Your task to perform on an android device: Go to notification settings Image 0: 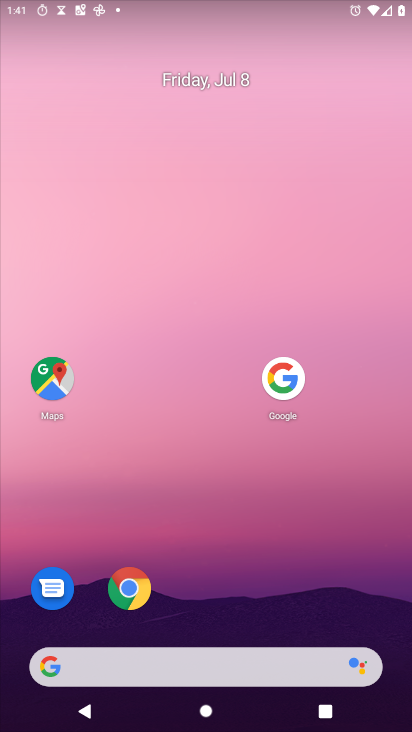
Step 0: drag from (198, 585) to (273, 131)
Your task to perform on an android device: Go to notification settings Image 1: 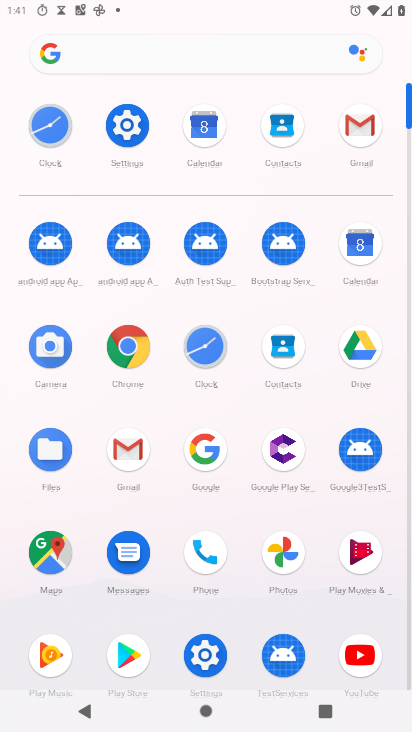
Step 1: click (129, 132)
Your task to perform on an android device: Go to notification settings Image 2: 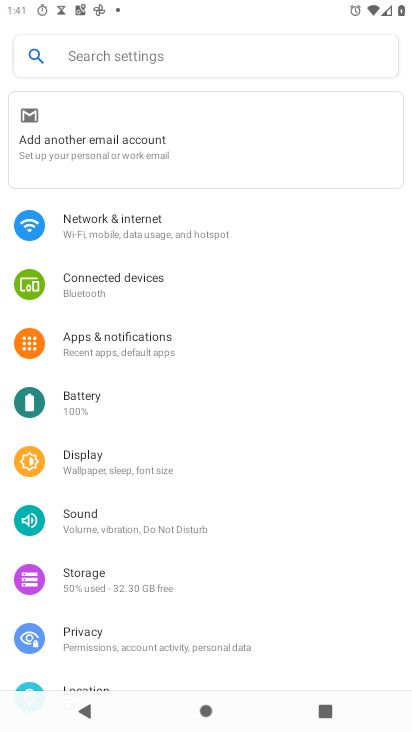
Step 2: click (150, 344)
Your task to perform on an android device: Go to notification settings Image 3: 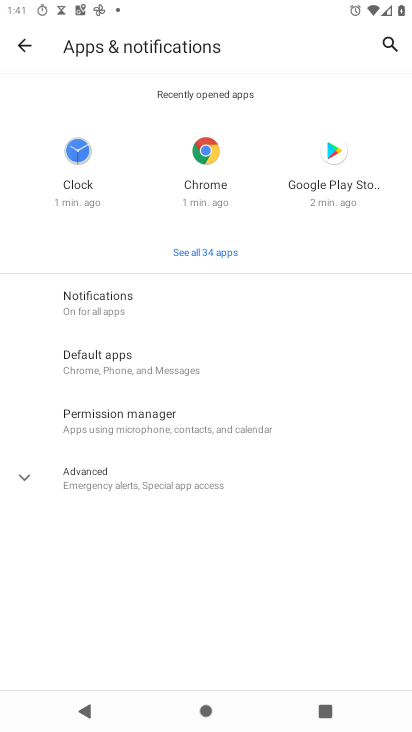
Step 3: click (93, 305)
Your task to perform on an android device: Go to notification settings Image 4: 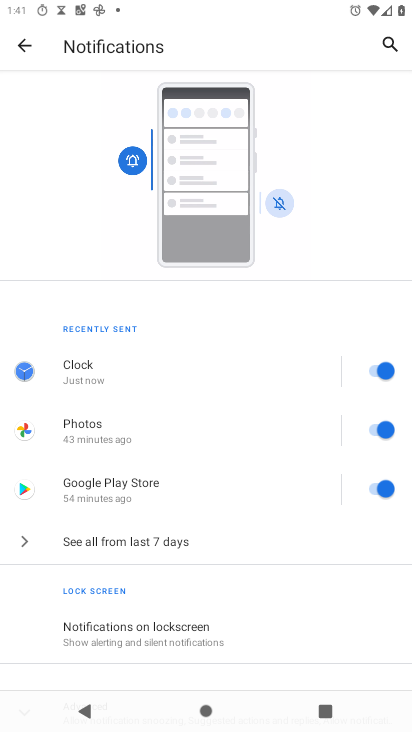
Step 4: task complete